Your task to perform on an android device: Open Chrome and go to settings Image 0: 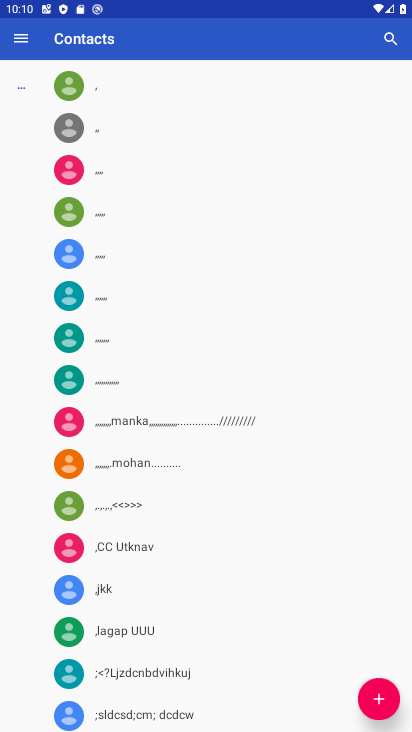
Step 0: press home button
Your task to perform on an android device: Open Chrome and go to settings Image 1: 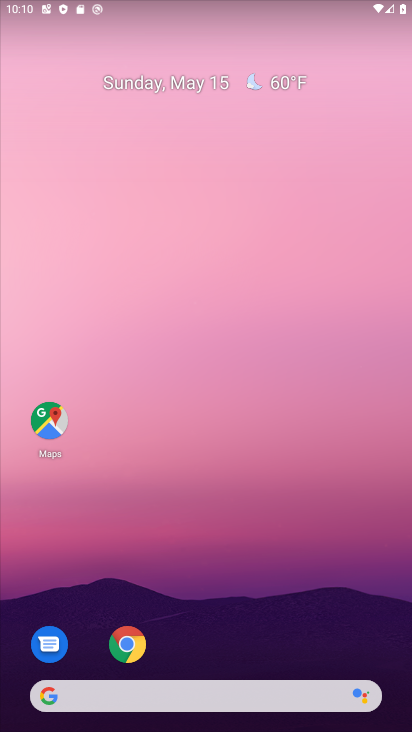
Step 1: drag from (175, 586) to (217, 278)
Your task to perform on an android device: Open Chrome and go to settings Image 2: 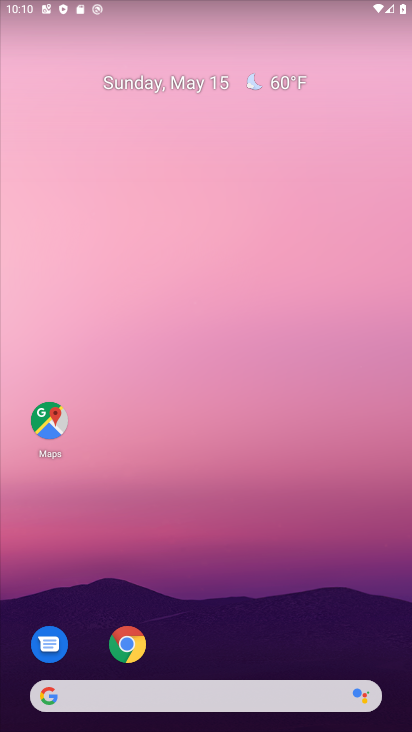
Step 2: click (136, 641)
Your task to perform on an android device: Open Chrome and go to settings Image 3: 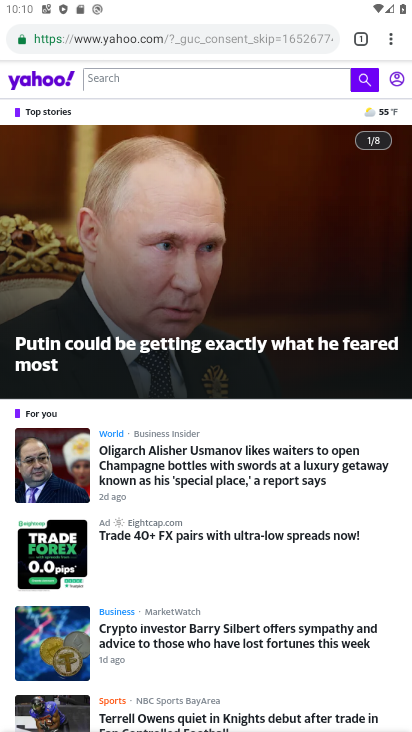
Step 3: click (394, 37)
Your task to perform on an android device: Open Chrome and go to settings Image 4: 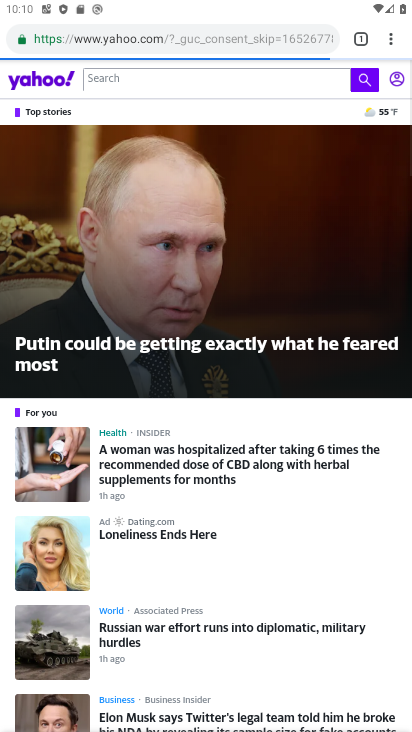
Step 4: click (394, 37)
Your task to perform on an android device: Open Chrome and go to settings Image 5: 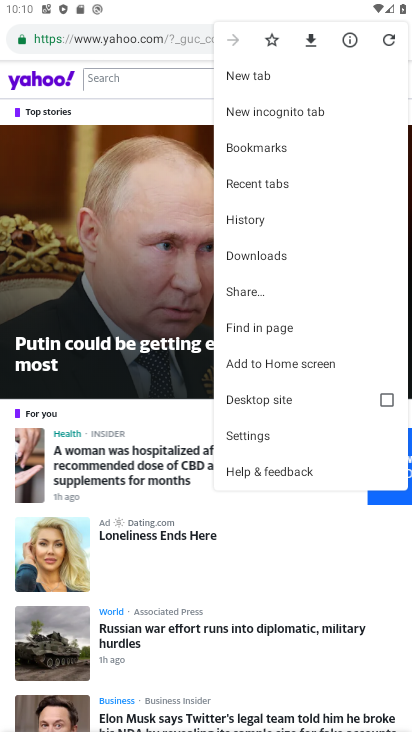
Step 5: click (249, 429)
Your task to perform on an android device: Open Chrome and go to settings Image 6: 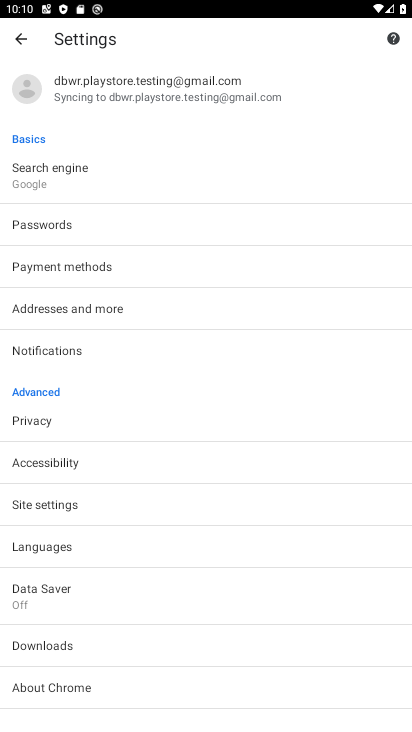
Step 6: task complete